Your task to perform on an android device: change the clock display to analog Image 0: 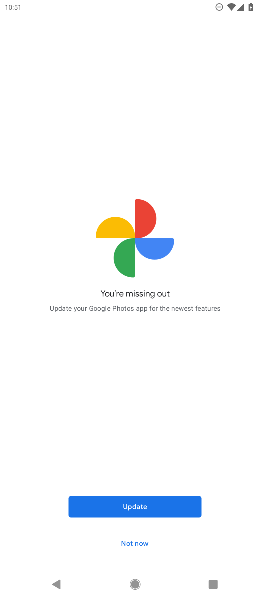
Step 0: press home button
Your task to perform on an android device: change the clock display to analog Image 1: 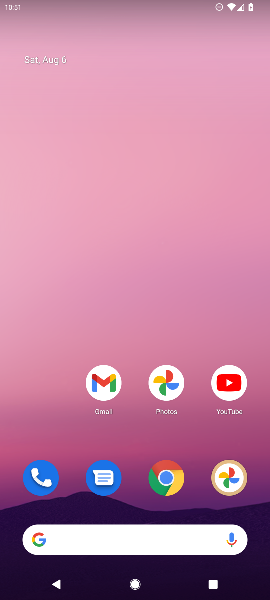
Step 1: drag from (143, 517) to (127, 62)
Your task to perform on an android device: change the clock display to analog Image 2: 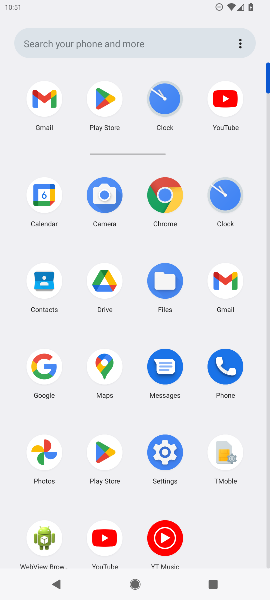
Step 2: click (228, 198)
Your task to perform on an android device: change the clock display to analog Image 3: 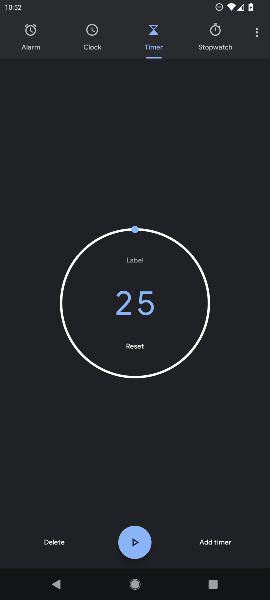
Step 3: click (258, 34)
Your task to perform on an android device: change the clock display to analog Image 4: 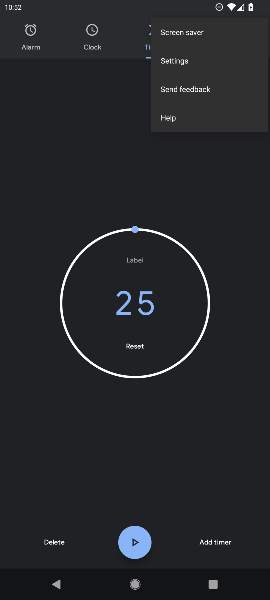
Step 4: click (169, 59)
Your task to perform on an android device: change the clock display to analog Image 5: 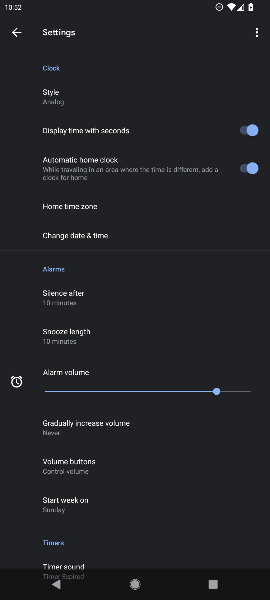
Step 5: task complete